Your task to perform on an android device: uninstall "LiveIn - Share Your Moment" Image 0: 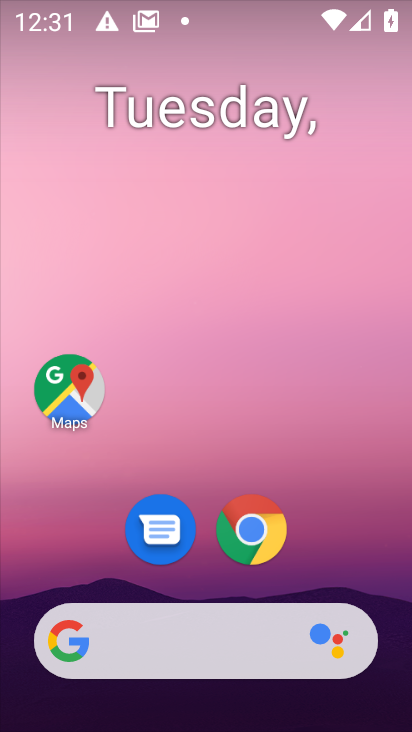
Step 0: drag from (213, 676) to (210, 130)
Your task to perform on an android device: uninstall "LiveIn - Share Your Moment" Image 1: 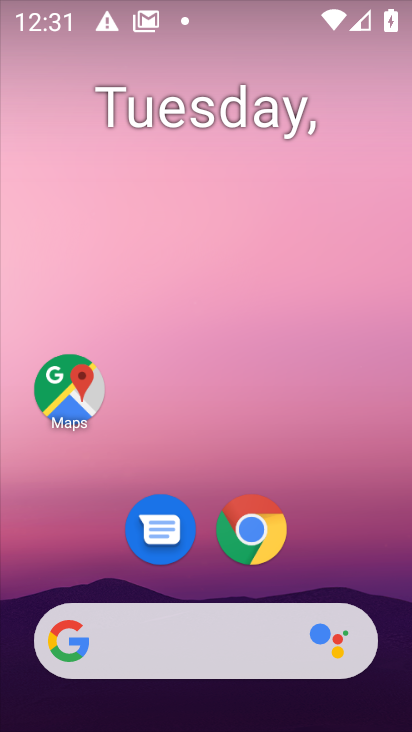
Step 1: drag from (203, 609) to (168, 52)
Your task to perform on an android device: uninstall "LiveIn - Share Your Moment" Image 2: 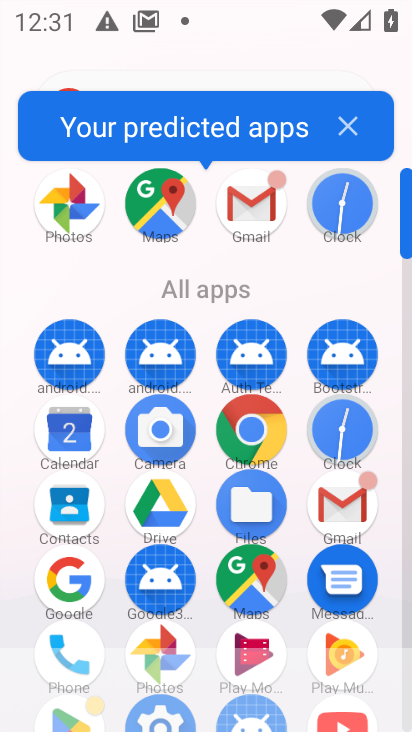
Step 2: drag from (209, 614) to (189, 231)
Your task to perform on an android device: uninstall "LiveIn - Share Your Moment" Image 3: 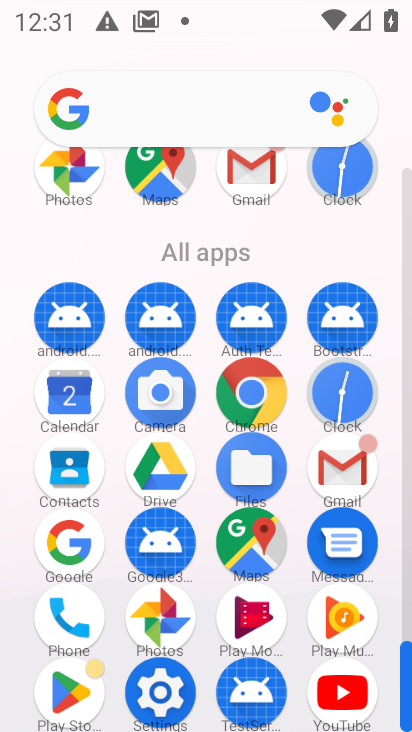
Step 3: click (63, 708)
Your task to perform on an android device: uninstall "LiveIn - Share Your Moment" Image 4: 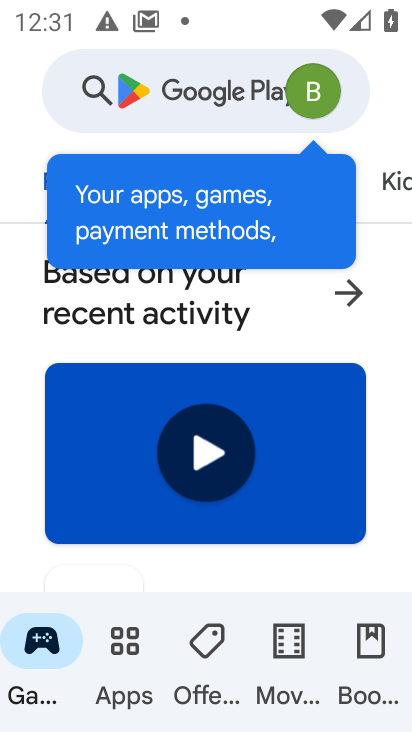
Step 4: click (221, 105)
Your task to perform on an android device: uninstall "LiveIn - Share Your Moment" Image 5: 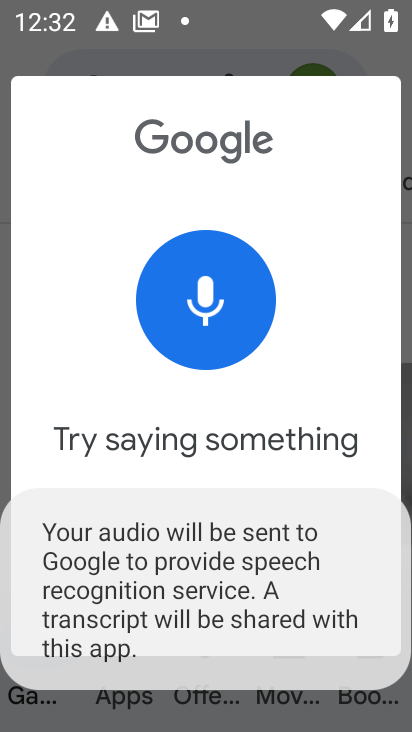
Step 5: press back button
Your task to perform on an android device: uninstall "LiveIn - Share Your Moment" Image 6: 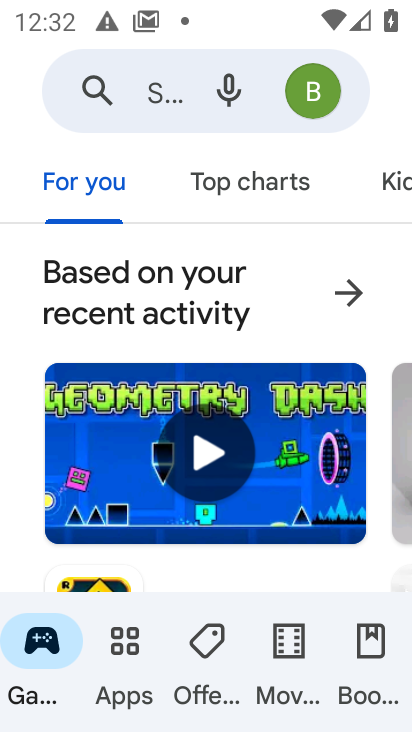
Step 6: click (145, 102)
Your task to perform on an android device: uninstall "LiveIn - Share Your Moment" Image 7: 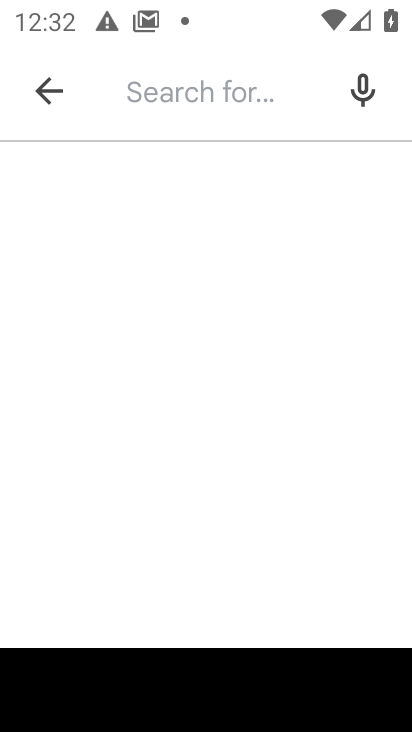
Step 7: type "LiveIn - Share Your Moment"
Your task to perform on an android device: uninstall "LiveIn - Share Your Moment" Image 8: 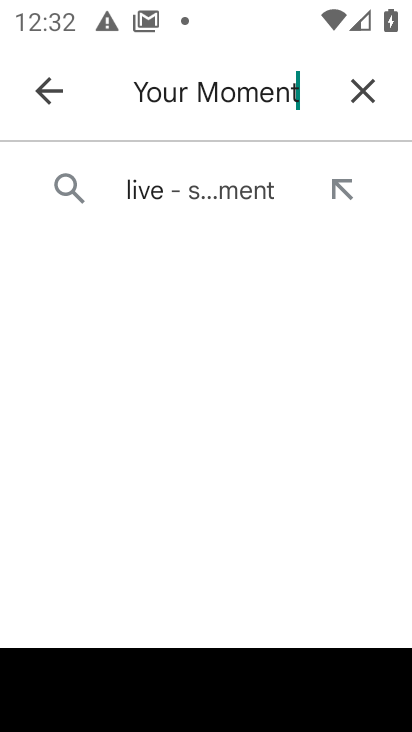
Step 8: click (188, 195)
Your task to perform on an android device: uninstall "LiveIn - Share Your Moment" Image 9: 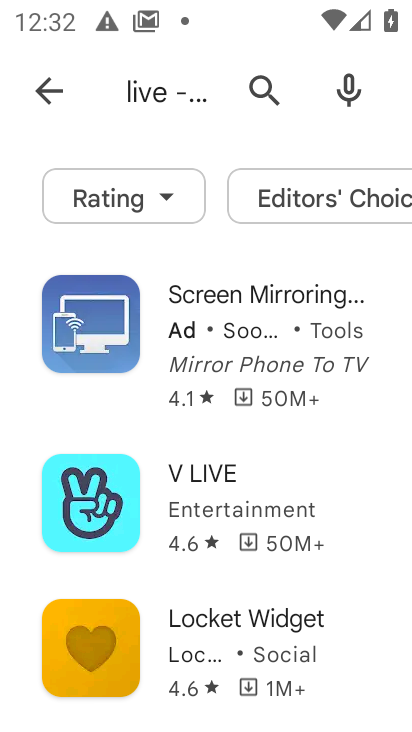
Step 9: task complete